Your task to perform on an android device: toggle notifications settings in the gmail app Image 0: 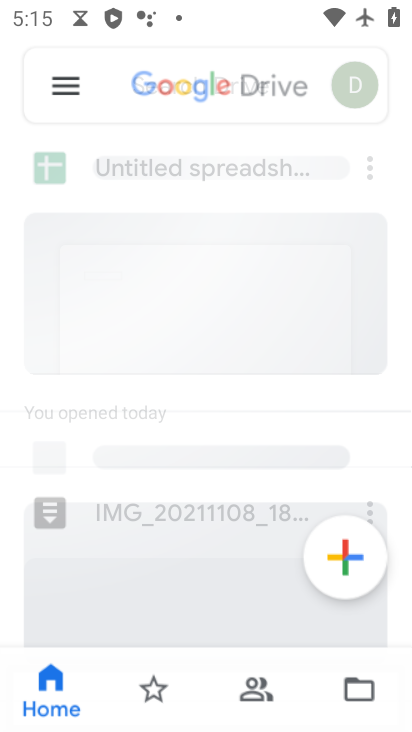
Step 0: drag from (313, 591) to (256, 134)
Your task to perform on an android device: toggle notifications settings in the gmail app Image 1: 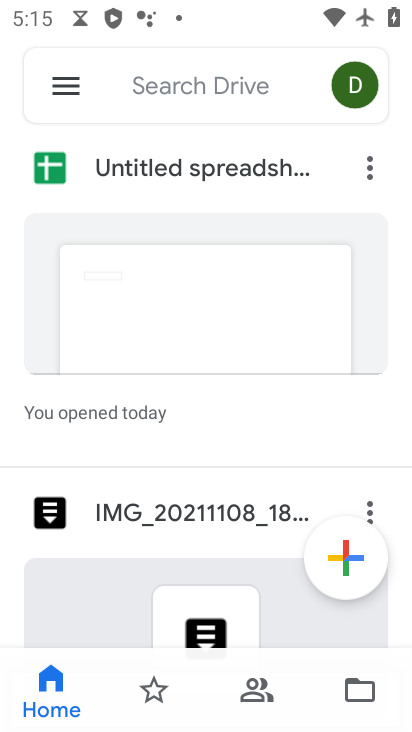
Step 1: press back button
Your task to perform on an android device: toggle notifications settings in the gmail app Image 2: 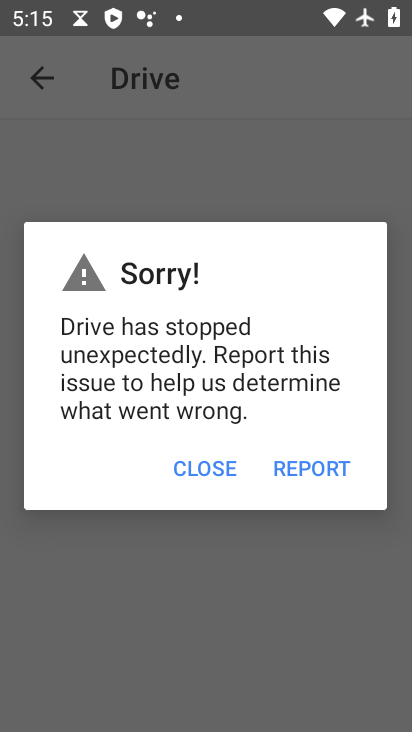
Step 2: click (227, 462)
Your task to perform on an android device: toggle notifications settings in the gmail app Image 3: 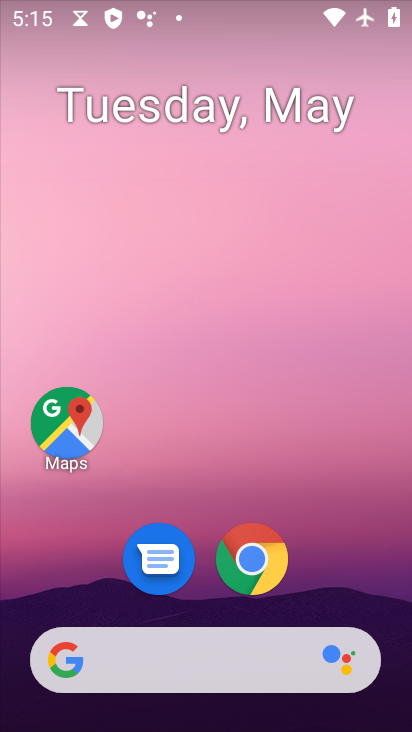
Step 3: drag from (309, 503) to (169, 41)
Your task to perform on an android device: toggle notifications settings in the gmail app Image 4: 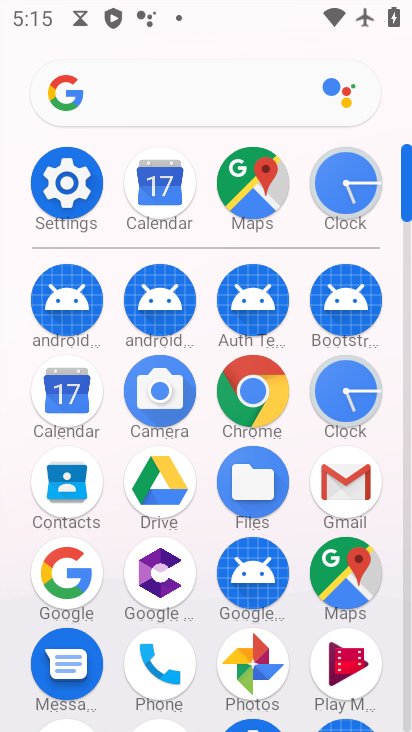
Step 4: click (345, 473)
Your task to perform on an android device: toggle notifications settings in the gmail app Image 5: 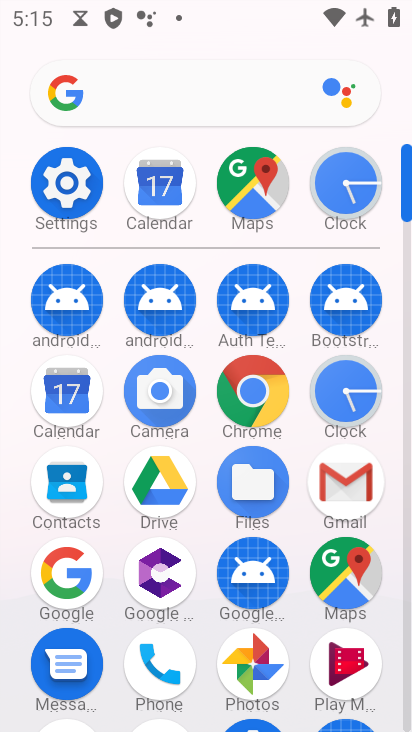
Step 5: click (345, 473)
Your task to perform on an android device: toggle notifications settings in the gmail app Image 6: 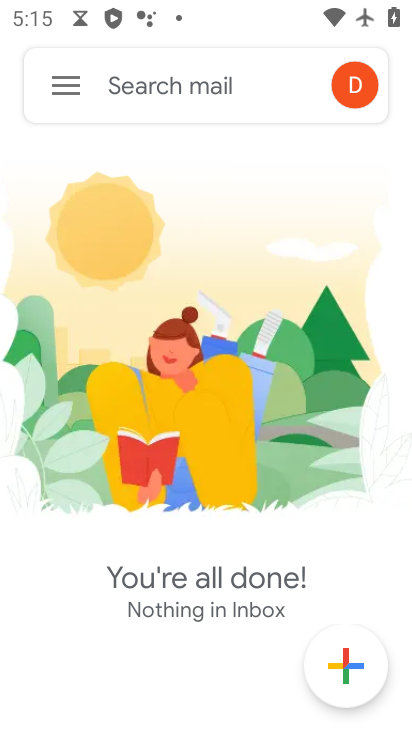
Step 6: click (72, 96)
Your task to perform on an android device: toggle notifications settings in the gmail app Image 7: 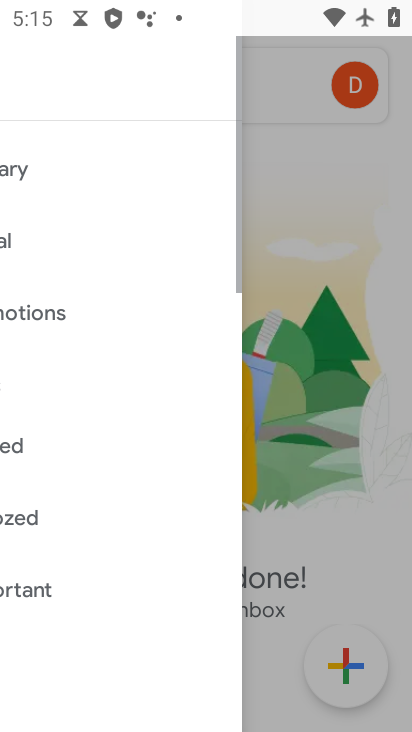
Step 7: click (72, 96)
Your task to perform on an android device: toggle notifications settings in the gmail app Image 8: 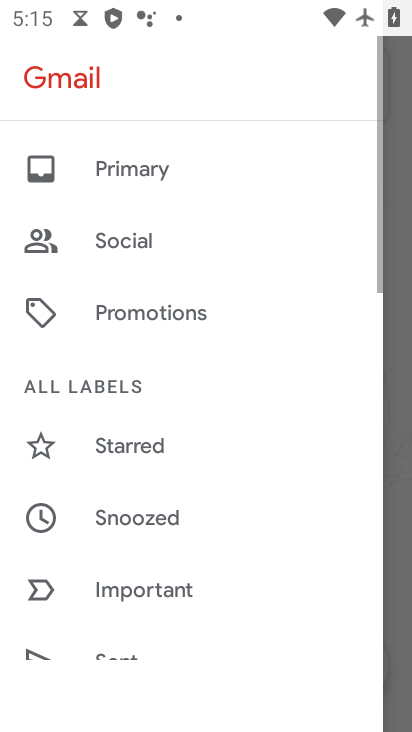
Step 8: click (72, 96)
Your task to perform on an android device: toggle notifications settings in the gmail app Image 9: 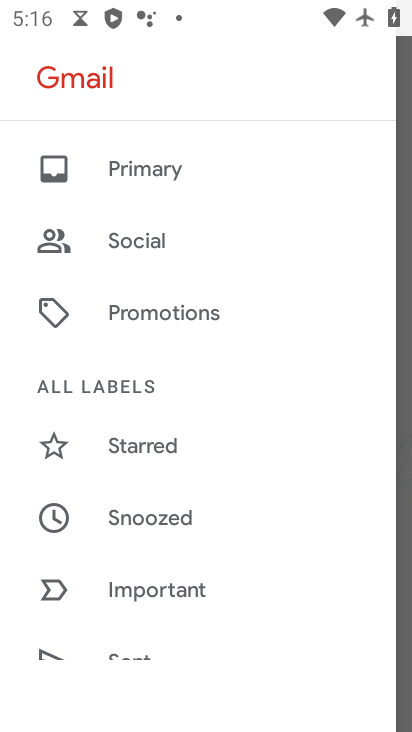
Step 9: drag from (206, 544) to (190, 78)
Your task to perform on an android device: toggle notifications settings in the gmail app Image 10: 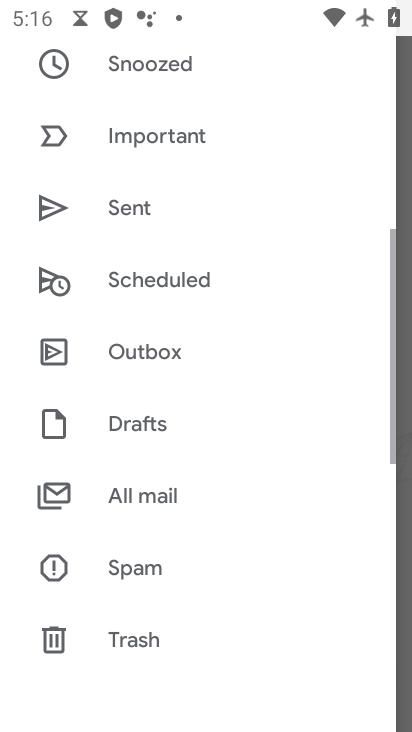
Step 10: drag from (189, 413) to (151, 93)
Your task to perform on an android device: toggle notifications settings in the gmail app Image 11: 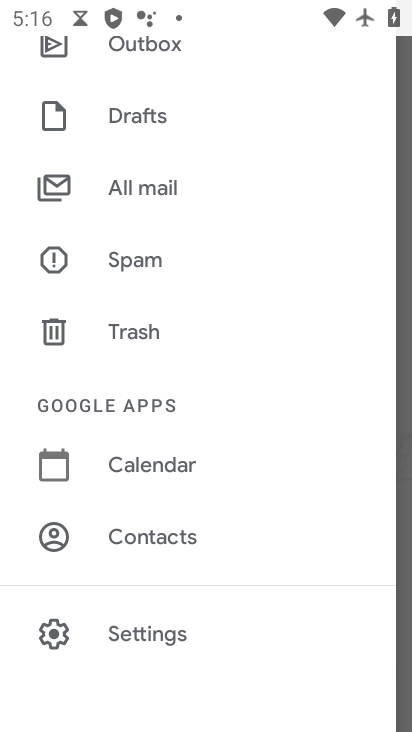
Step 11: drag from (152, 168) to (190, 443)
Your task to perform on an android device: toggle notifications settings in the gmail app Image 12: 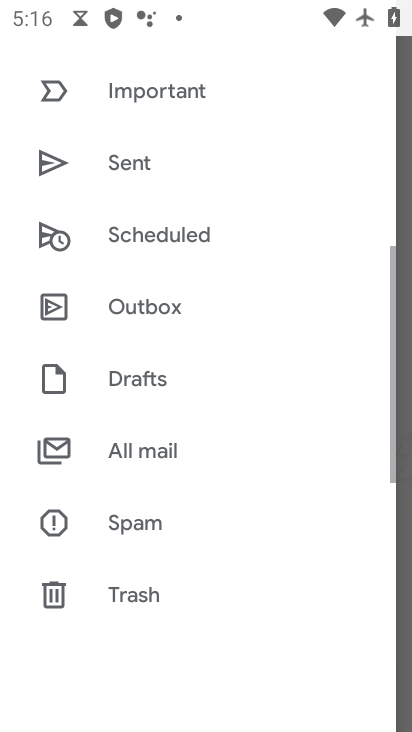
Step 12: drag from (212, 150) to (257, 484)
Your task to perform on an android device: toggle notifications settings in the gmail app Image 13: 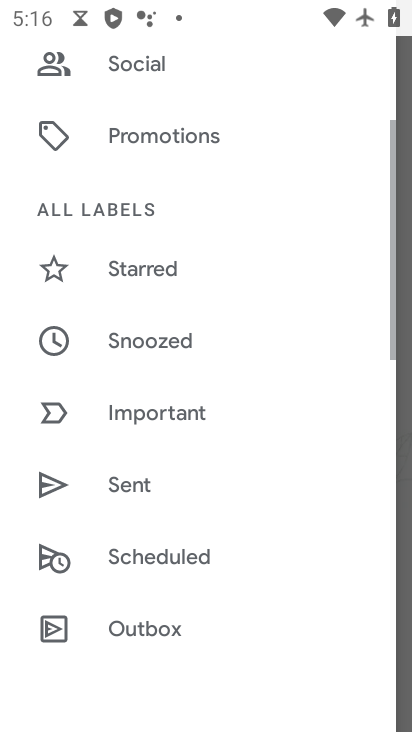
Step 13: drag from (216, 159) to (258, 500)
Your task to perform on an android device: toggle notifications settings in the gmail app Image 14: 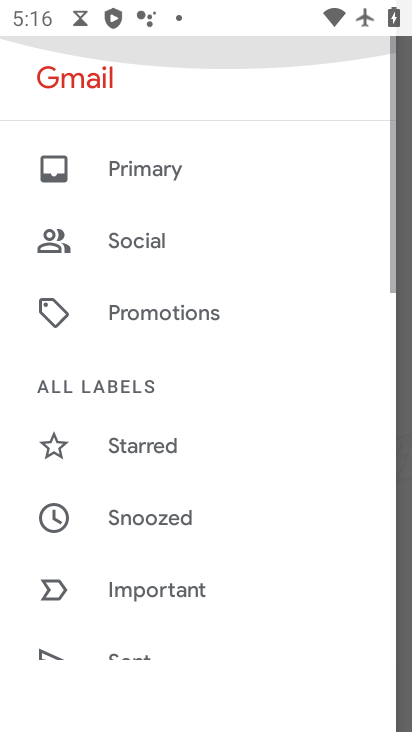
Step 14: drag from (234, 163) to (254, 548)
Your task to perform on an android device: toggle notifications settings in the gmail app Image 15: 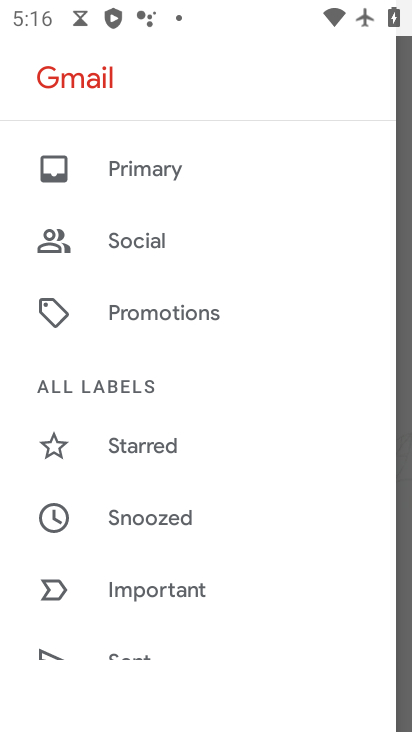
Step 15: drag from (205, 577) to (149, 195)
Your task to perform on an android device: toggle notifications settings in the gmail app Image 16: 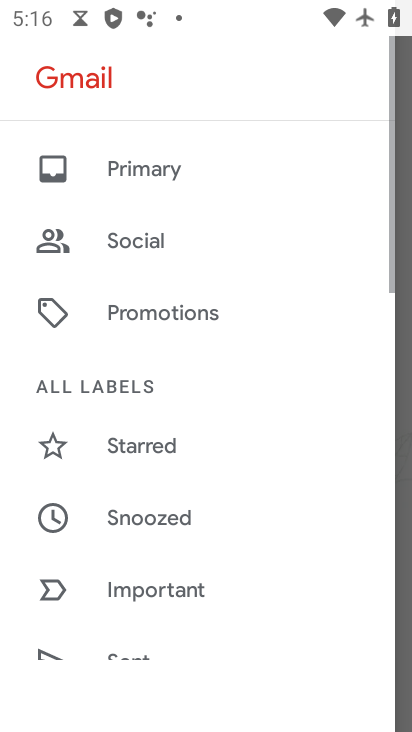
Step 16: drag from (194, 379) to (194, 14)
Your task to perform on an android device: toggle notifications settings in the gmail app Image 17: 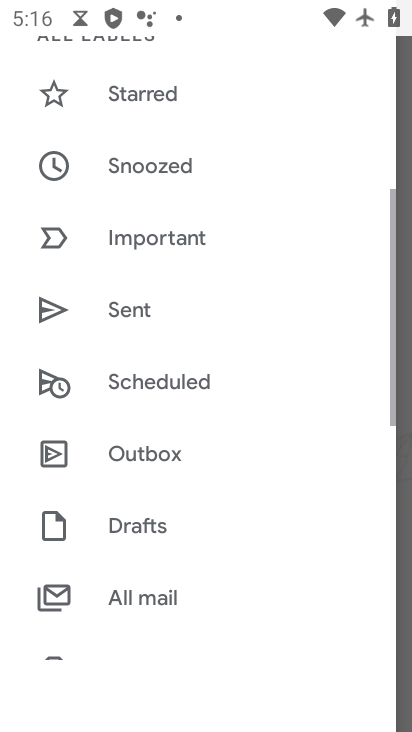
Step 17: drag from (230, 468) to (212, 140)
Your task to perform on an android device: toggle notifications settings in the gmail app Image 18: 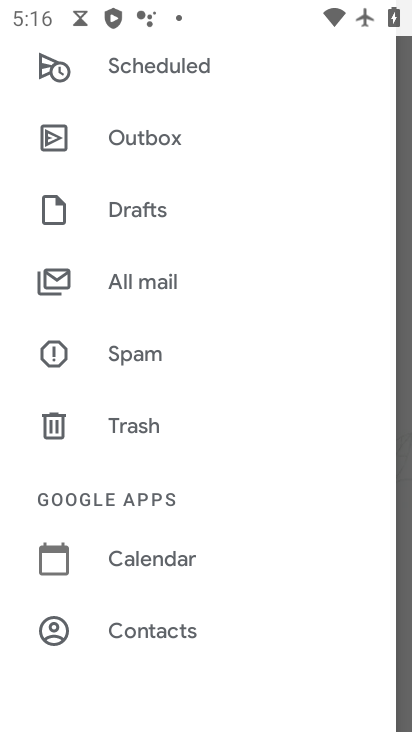
Step 18: drag from (164, 546) to (135, 35)
Your task to perform on an android device: toggle notifications settings in the gmail app Image 19: 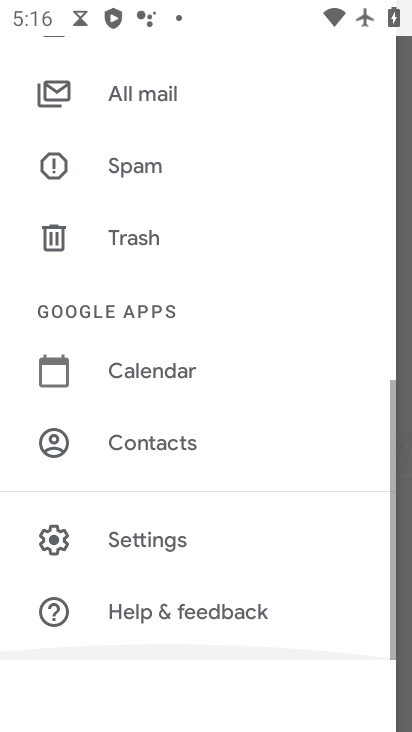
Step 19: drag from (177, 399) to (128, 50)
Your task to perform on an android device: toggle notifications settings in the gmail app Image 20: 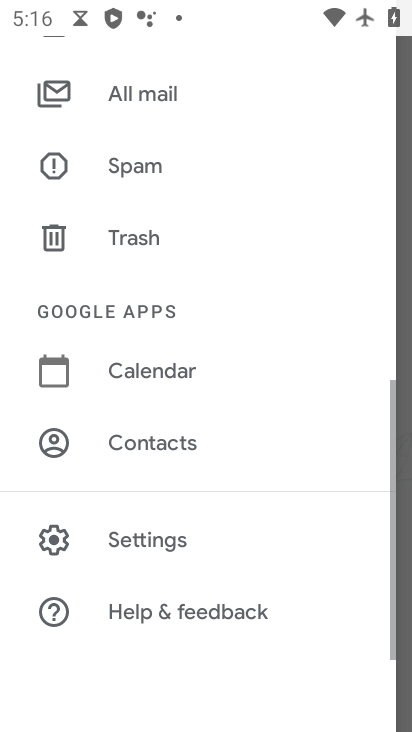
Step 20: click (155, 540)
Your task to perform on an android device: toggle notifications settings in the gmail app Image 21: 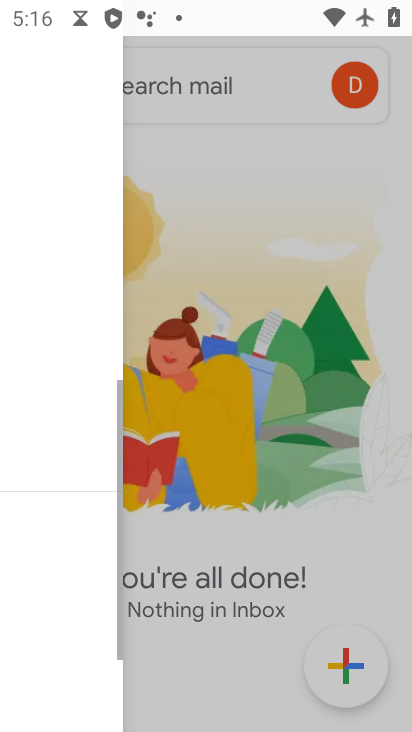
Step 21: click (155, 540)
Your task to perform on an android device: toggle notifications settings in the gmail app Image 22: 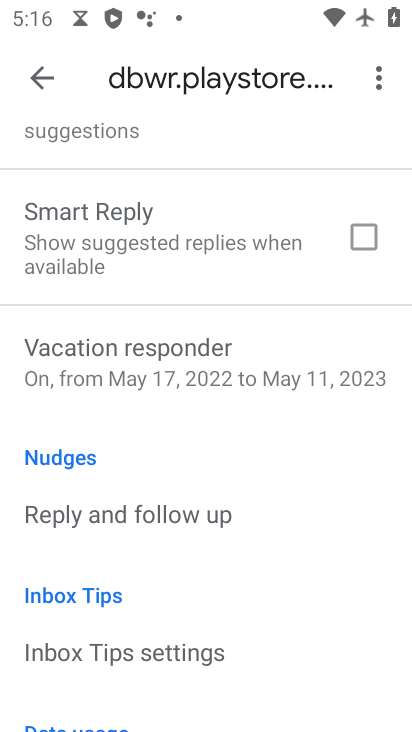
Step 22: drag from (137, 540) to (116, 151)
Your task to perform on an android device: toggle notifications settings in the gmail app Image 23: 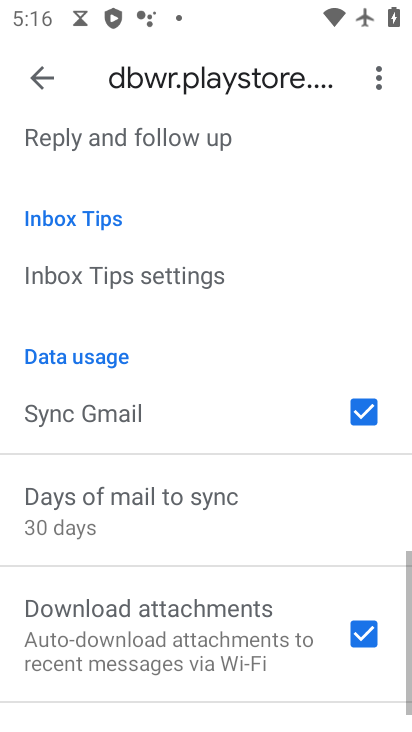
Step 23: drag from (125, 533) to (111, 143)
Your task to perform on an android device: toggle notifications settings in the gmail app Image 24: 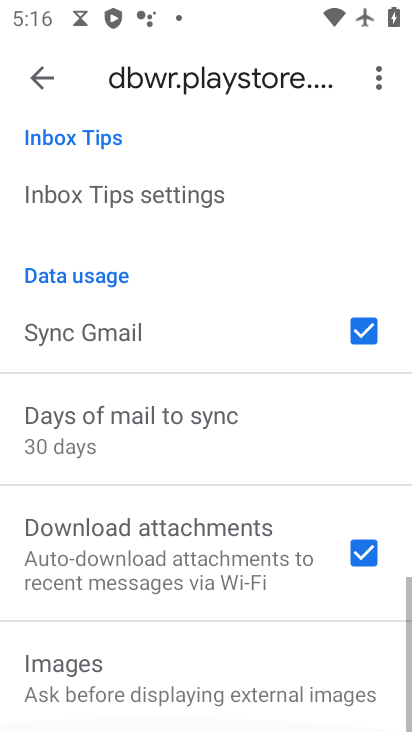
Step 24: drag from (128, 441) to (137, 157)
Your task to perform on an android device: toggle notifications settings in the gmail app Image 25: 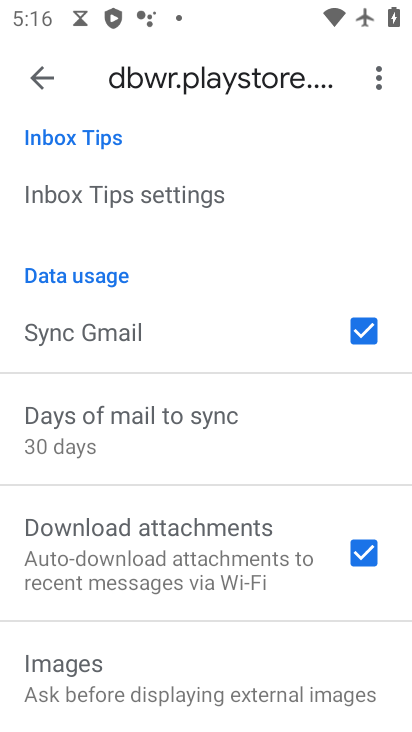
Step 25: drag from (112, 244) to (166, 518)
Your task to perform on an android device: toggle notifications settings in the gmail app Image 26: 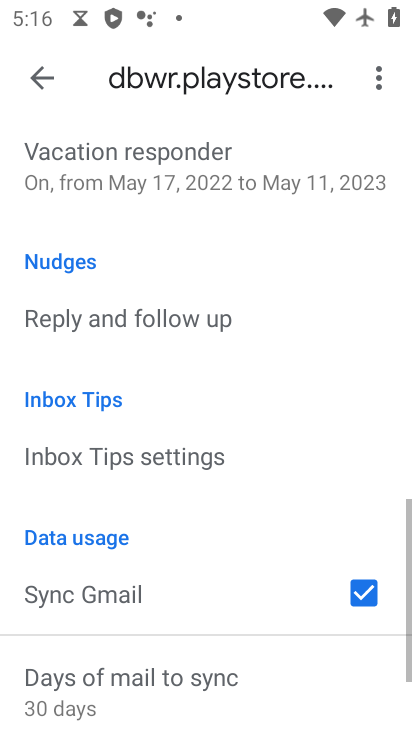
Step 26: drag from (131, 209) to (133, 492)
Your task to perform on an android device: toggle notifications settings in the gmail app Image 27: 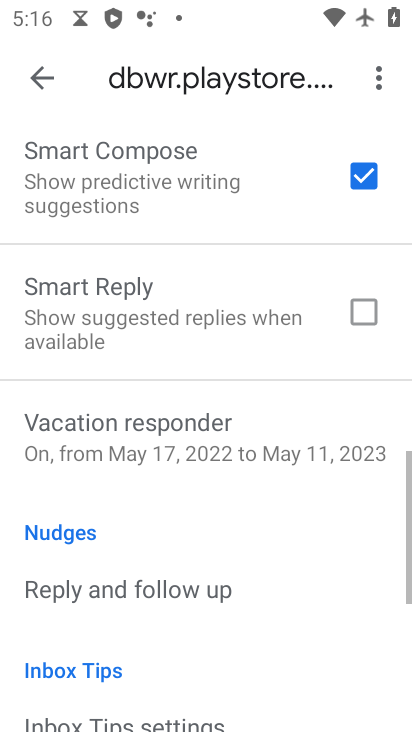
Step 27: drag from (122, 218) to (167, 557)
Your task to perform on an android device: toggle notifications settings in the gmail app Image 28: 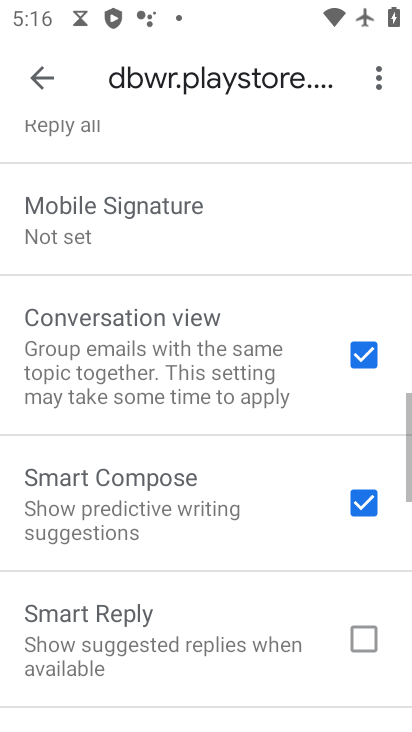
Step 28: drag from (156, 269) to (187, 530)
Your task to perform on an android device: toggle notifications settings in the gmail app Image 29: 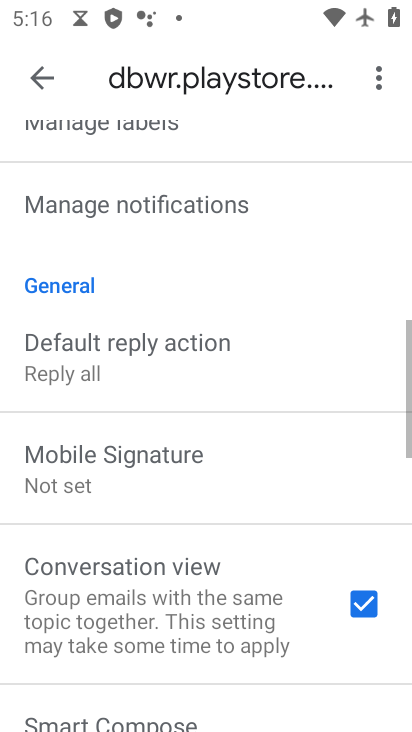
Step 29: drag from (177, 256) to (212, 521)
Your task to perform on an android device: toggle notifications settings in the gmail app Image 30: 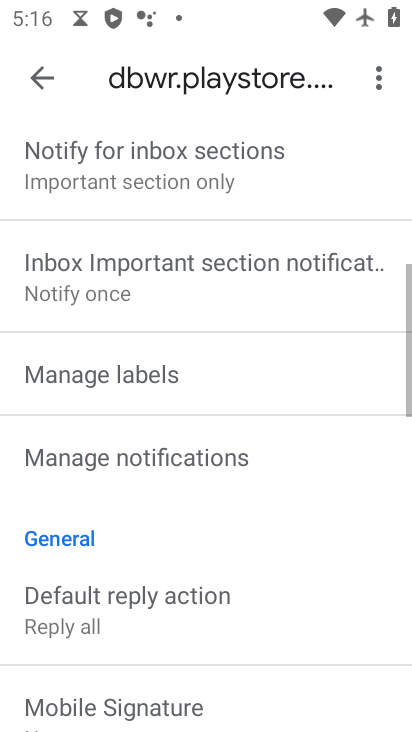
Step 30: drag from (182, 325) to (204, 516)
Your task to perform on an android device: toggle notifications settings in the gmail app Image 31: 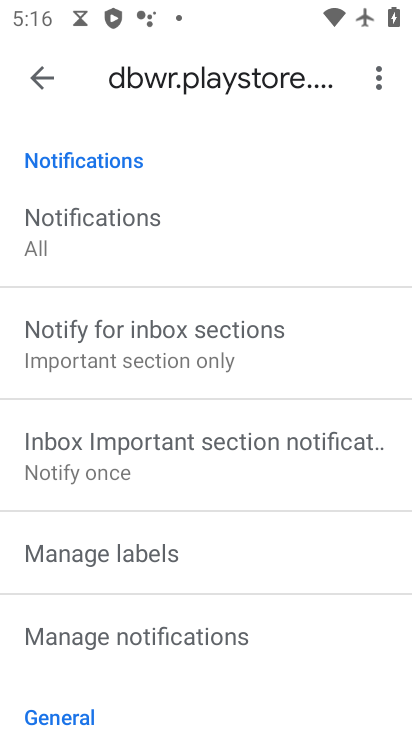
Step 31: click (105, 213)
Your task to perform on an android device: toggle notifications settings in the gmail app Image 32: 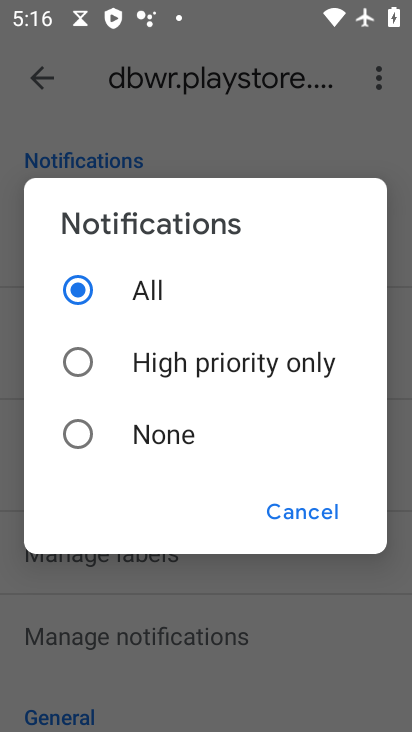
Step 32: click (69, 354)
Your task to perform on an android device: toggle notifications settings in the gmail app Image 33: 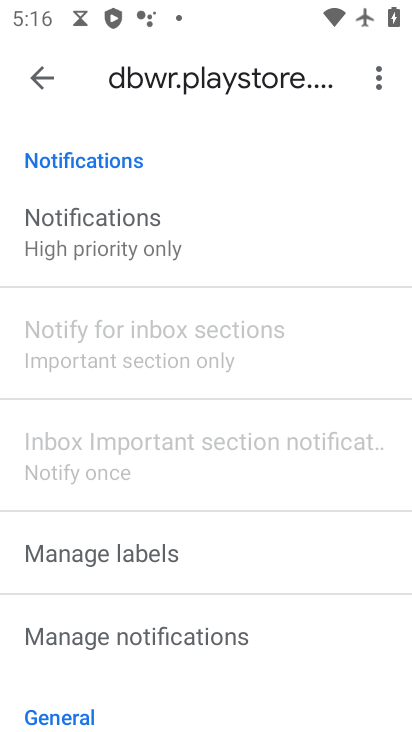
Step 33: task complete